Your task to perform on an android device: change alarm snooze length Image 0: 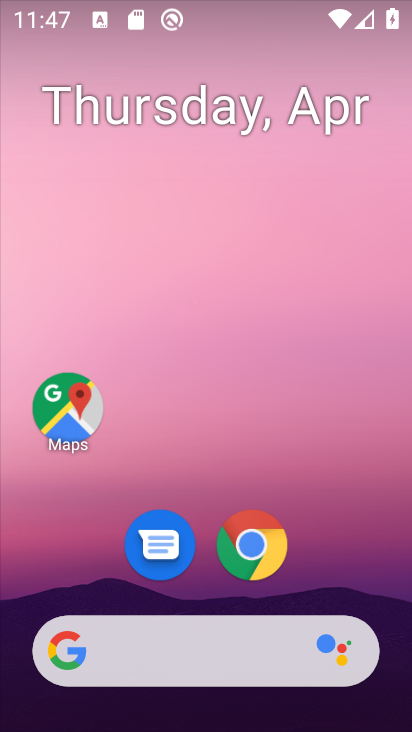
Step 0: drag from (207, 480) to (235, 2)
Your task to perform on an android device: change alarm snooze length Image 1: 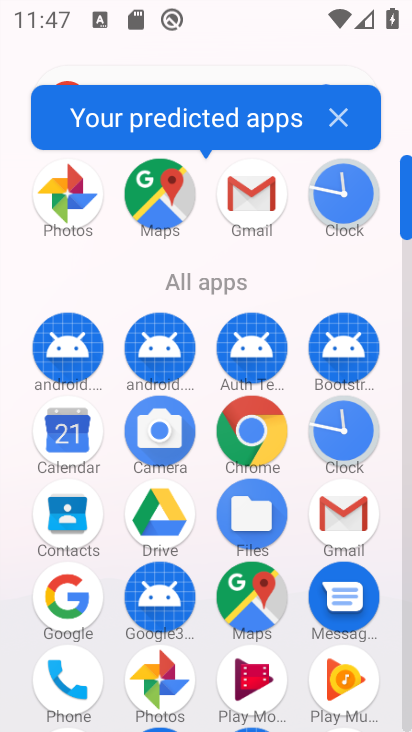
Step 1: click (339, 426)
Your task to perform on an android device: change alarm snooze length Image 2: 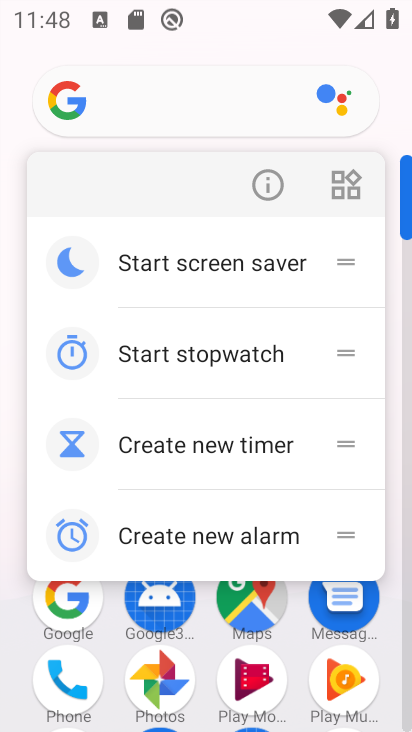
Step 2: click (263, 194)
Your task to perform on an android device: change alarm snooze length Image 3: 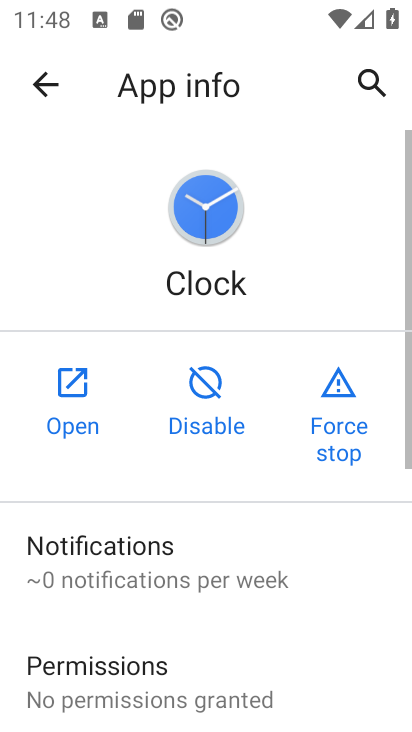
Step 3: click (57, 419)
Your task to perform on an android device: change alarm snooze length Image 4: 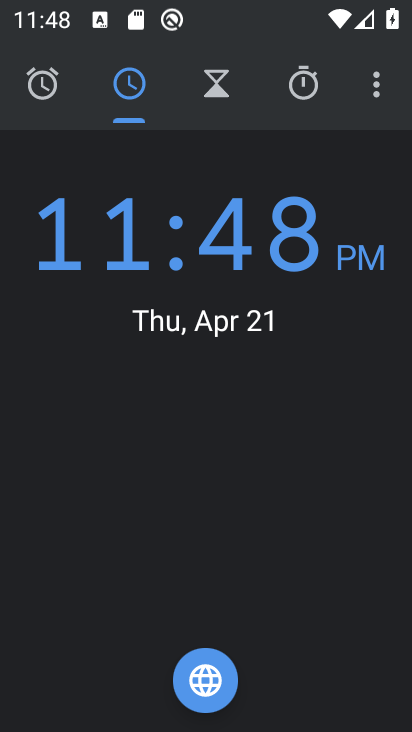
Step 4: click (375, 98)
Your task to perform on an android device: change alarm snooze length Image 5: 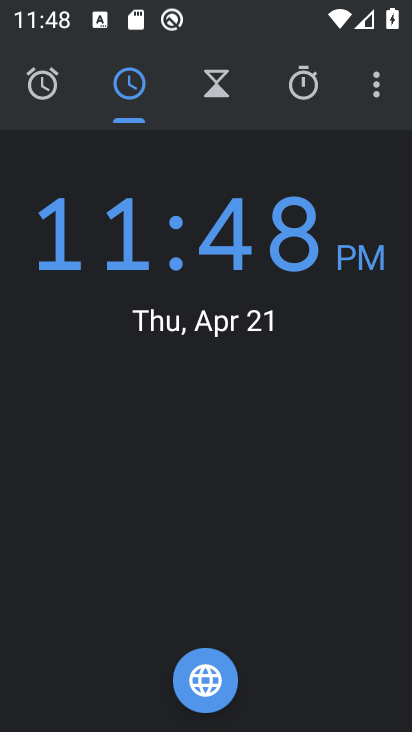
Step 5: click (377, 88)
Your task to perform on an android device: change alarm snooze length Image 6: 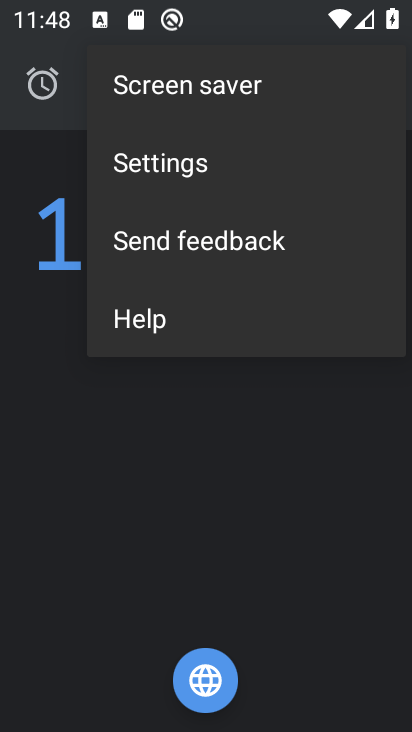
Step 6: click (209, 159)
Your task to perform on an android device: change alarm snooze length Image 7: 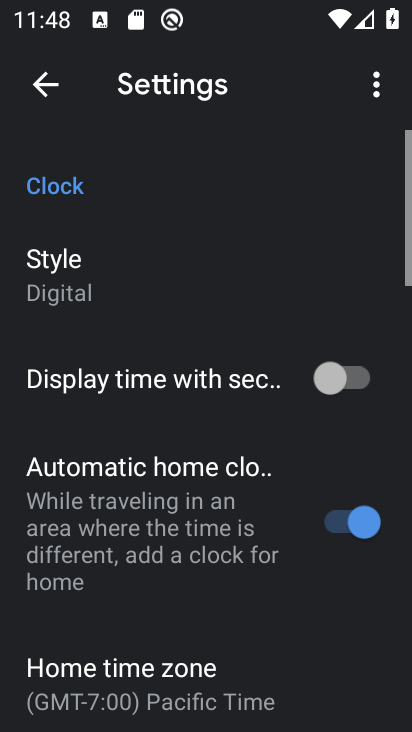
Step 7: drag from (146, 538) to (249, 219)
Your task to perform on an android device: change alarm snooze length Image 8: 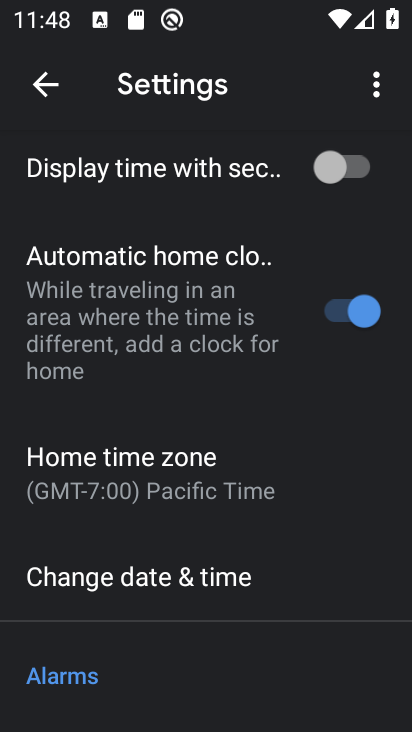
Step 8: drag from (145, 534) to (214, 291)
Your task to perform on an android device: change alarm snooze length Image 9: 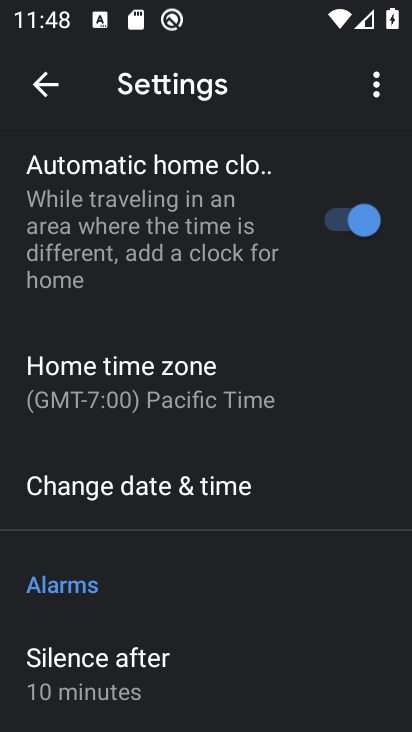
Step 9: drag from (125, 635) to (182, 361)
Your task to perform on an android device: change alarm snooze length Image 10: 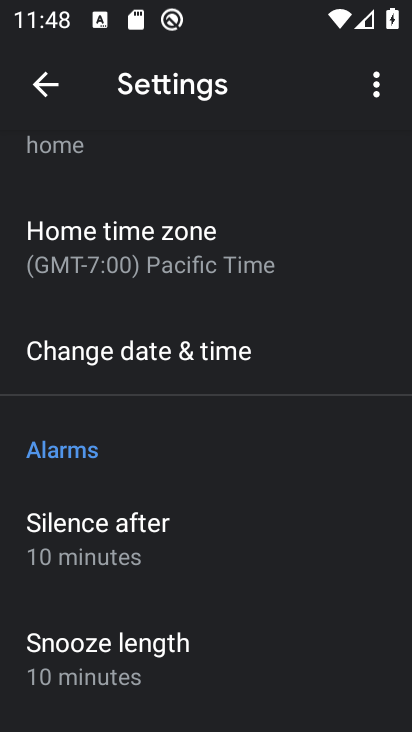
Step 10: click (137, 645)
Your task to perform on an android device: change alarm snooze length Image 11: 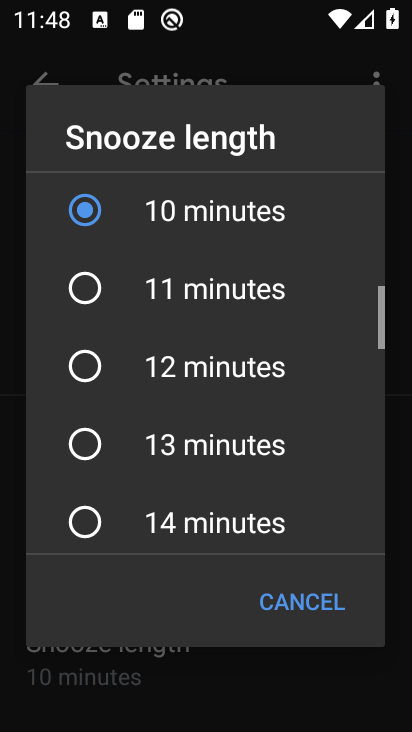
Step 11: click (131, 284)
Your task to perform on an android device: change alarm snooze length Image 12: 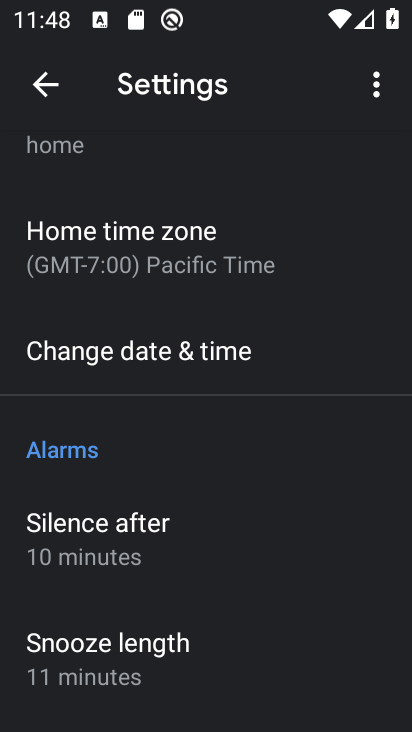
Step 12: task complete